Your task to perform on an android device: Open Android settings Image 0: 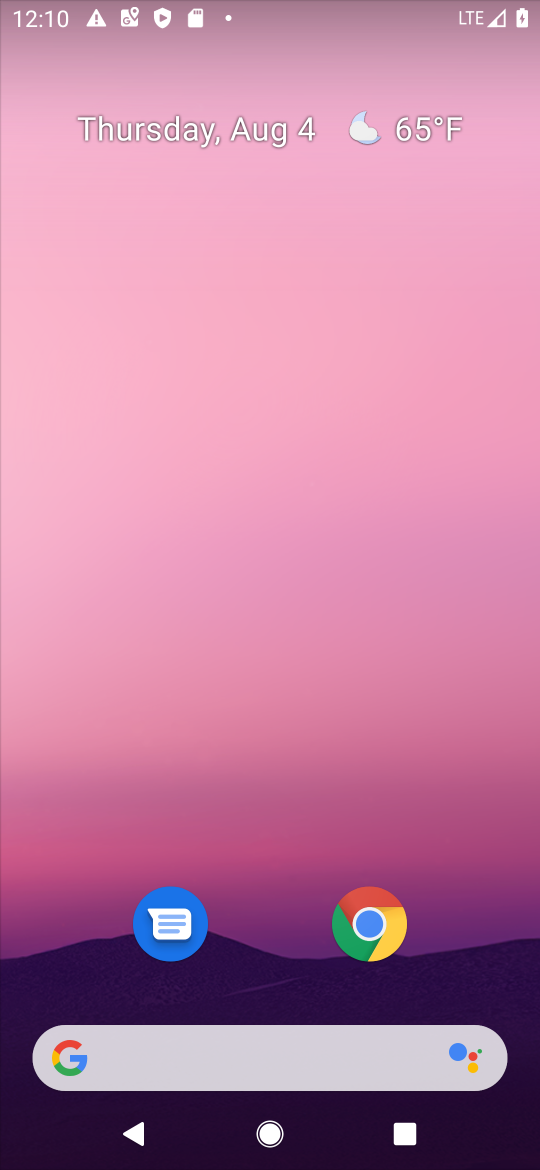
Step 0: drag from (99, 1020) to (314, 71)
Your task to perform on an android device: Open Android settings Image 1: 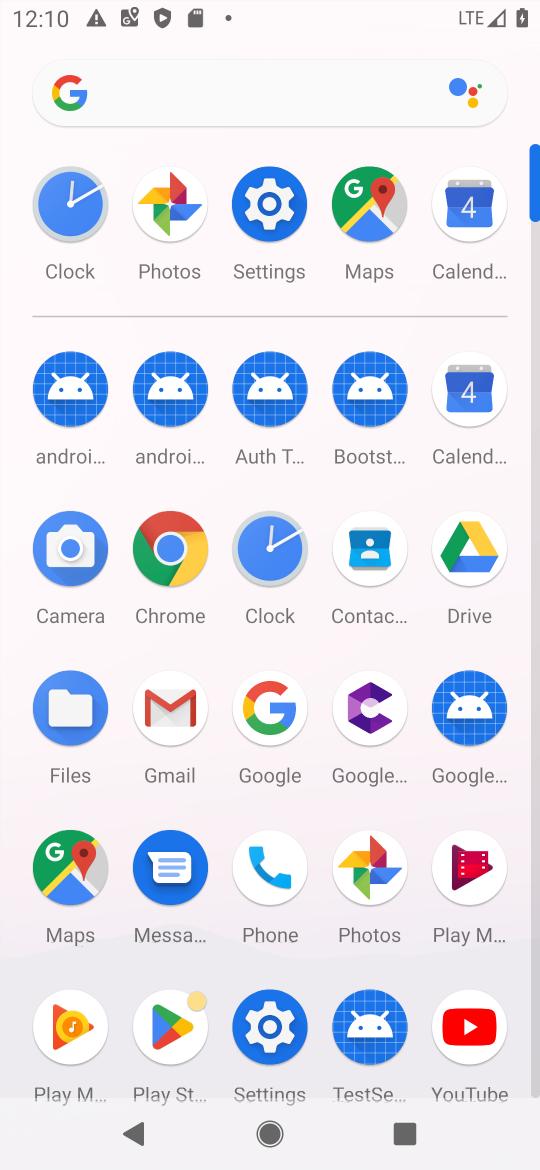
Step 1: click (255, 1032)
Your task to perform on an android device: Open Android settings Image 2: 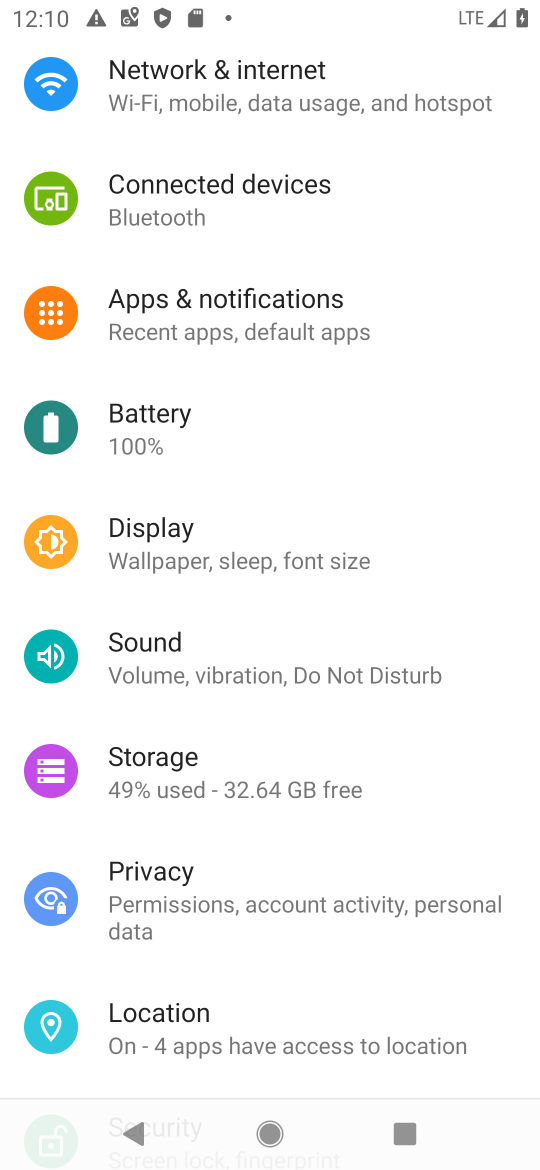
Step 2: drag from (299, 890) to (247, 182)
Your task to perform on an android device: Open Android settings Image 3: 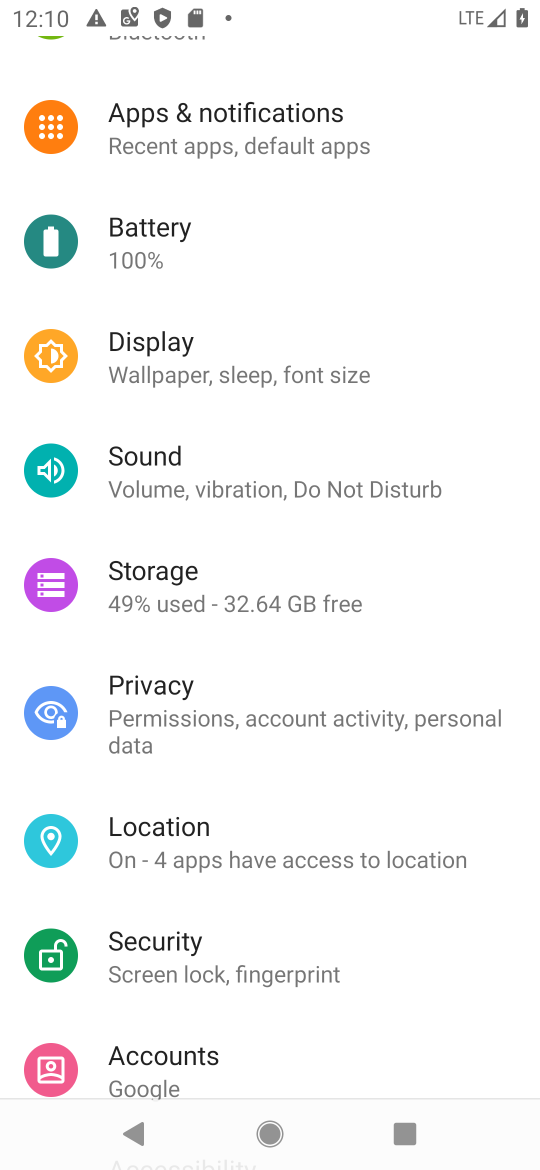
Step 3: drag from (271, 639) to (218, 85)
Your task to perform on an android device: Open Android settings Image 4: 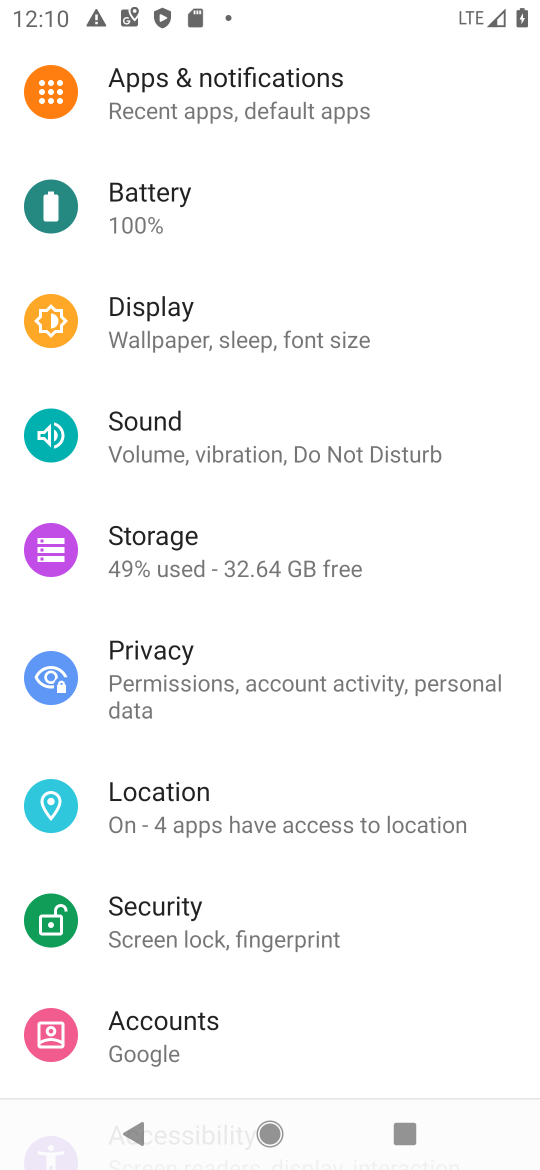
Step 4: drag from (249, 1046) to (185, 134)
Your task to perform on an android device: Open Android settings Image 5: 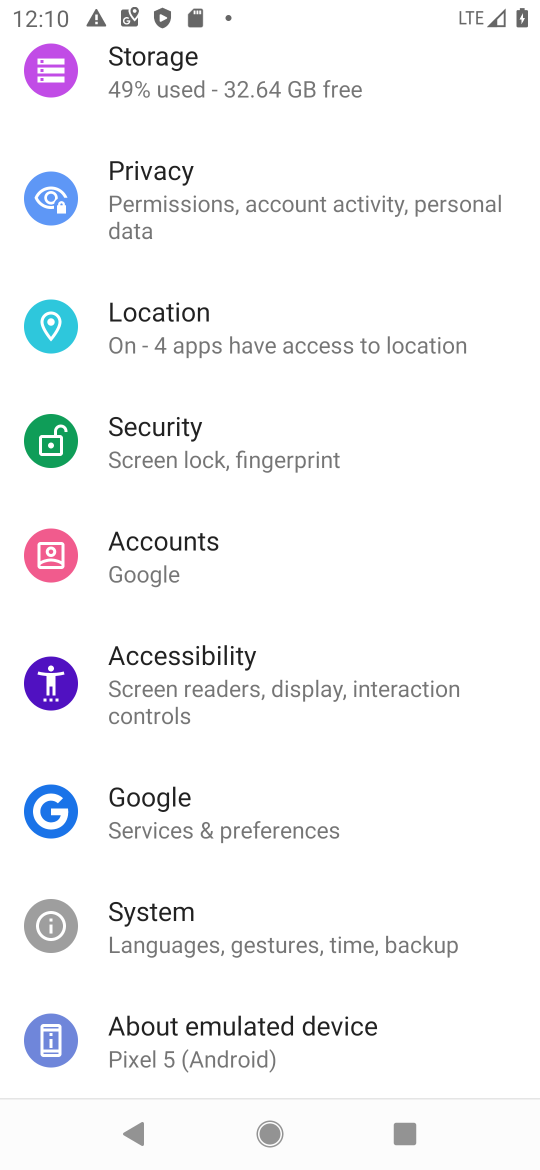
Step 5: click (193, 1037)
Your task to perform on an android device: Open Android settings Image 6: 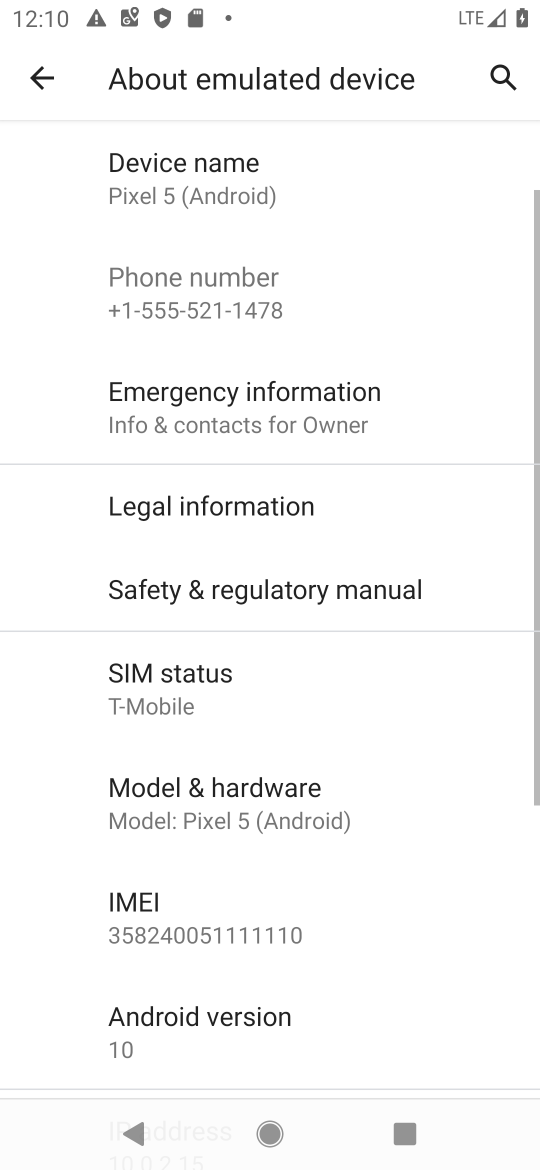
Step 6: click (209, 1030)
Your task to perform on an android device: Open Android settings Image 7: 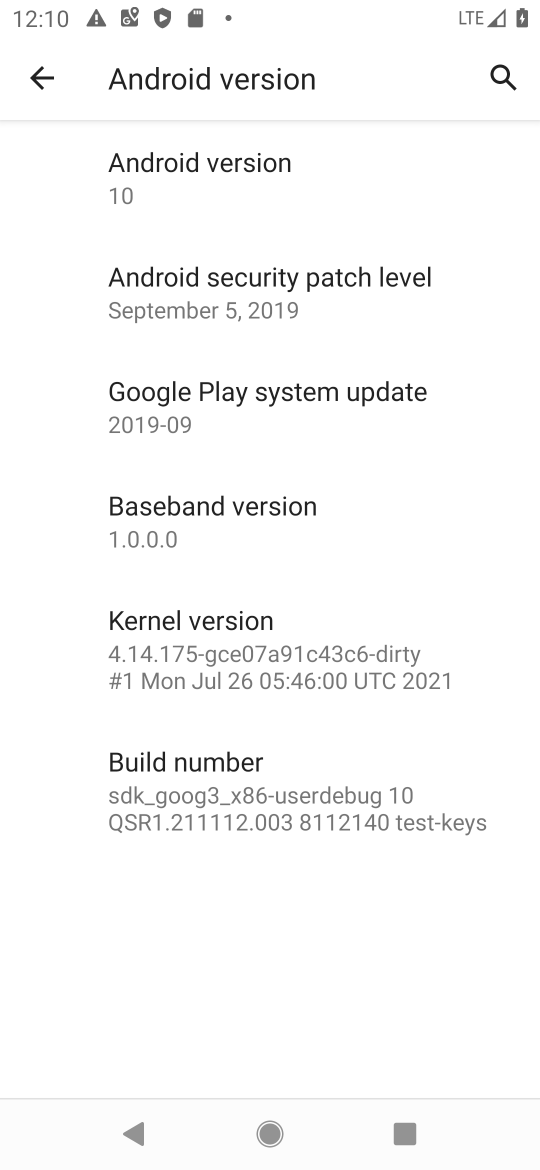
Step 7: task complete